Your task to perform on an android device: Is it going to rain this weekend? Image 0: 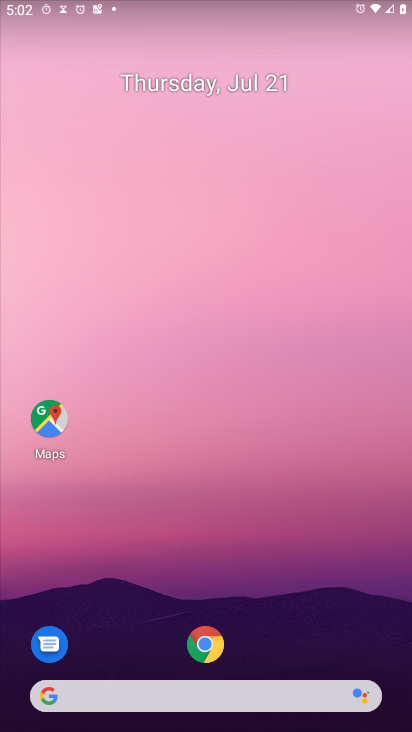
Step 0: press home button
Your task to perform on an android device: Is it going to rain this weekend? Image 1: 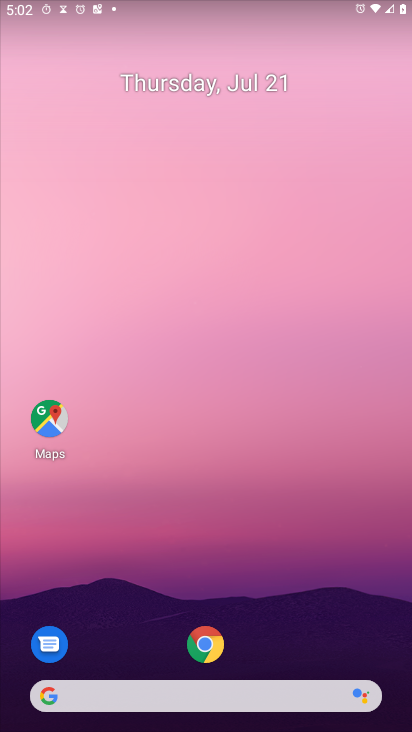
Step 1: click (45, 696)
Your task to perform on an android device: Is it going to rain this weekend? Image 2: 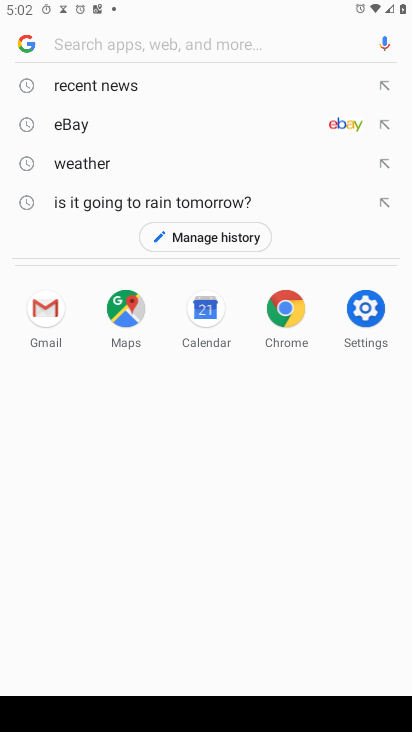
Step 2: type "Is it going to rain this weekend?"
Your task to perform on an android device: Is it going to rain this weekend? Image 3: 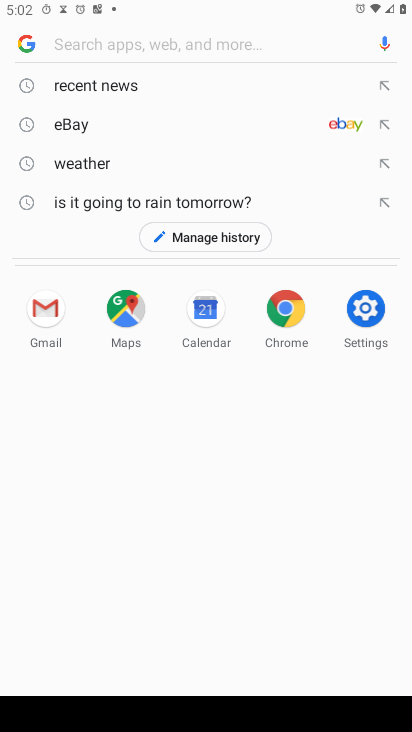
Step 3: drag from (112, 39) to (153, 47)
Your task to perform on an android device: Is it going to rain this weekend? Image 4: 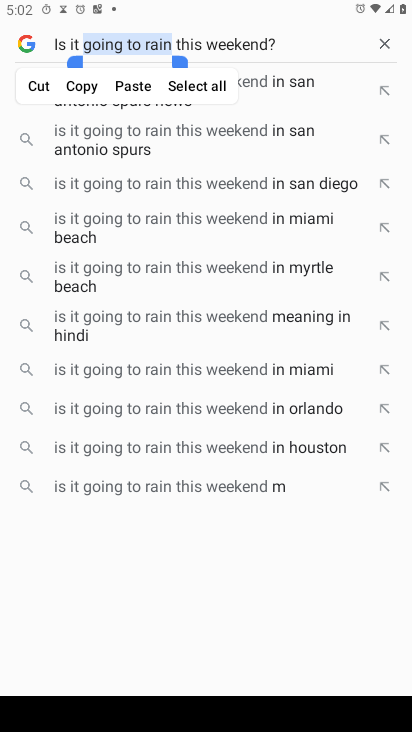
Step 4: press enter
Your task to perform on an android device: Is it going to rain this weekend? Image 5: 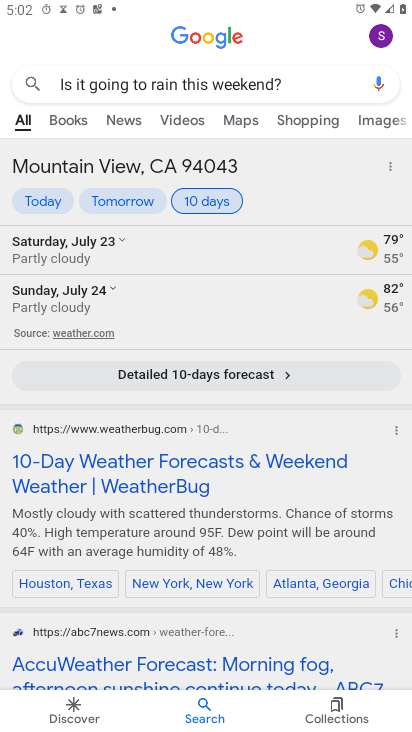
Step 5: task complete